Your task to perform on an android device: turn pop-ups on in chrome Image 0: 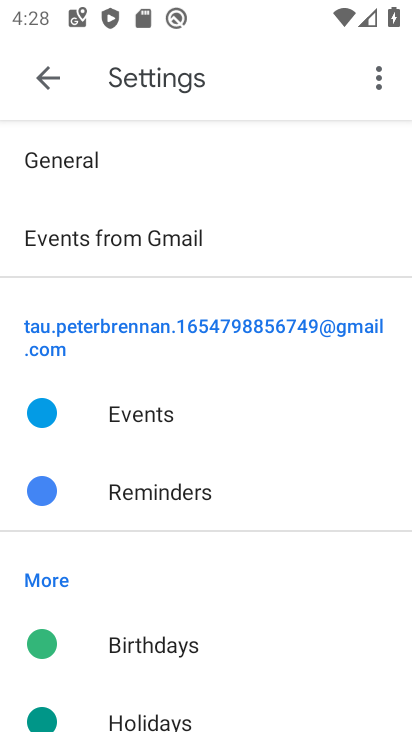
Step 0: press back button
Your task to perform on an android device: turn pop-ups on in chrome Image 1: 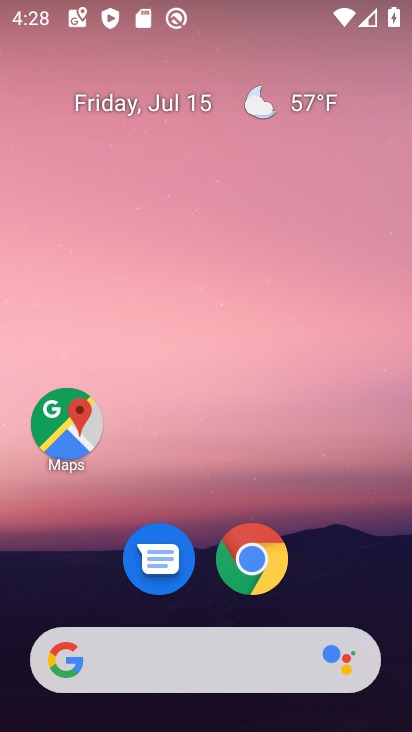
Step 1: click (245, 544)
Your task to perform on an android device: turn pop-ups on in chrome Image 2: 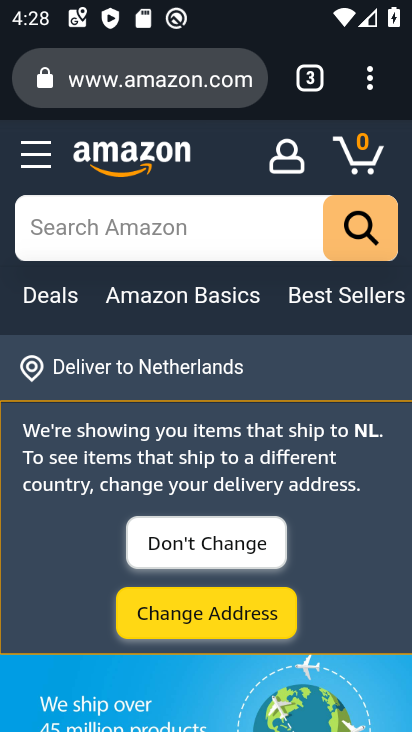
Step 2: drag from (377, 77) to (145, 621)
Your task to perform on an android device: turn pop-ups on in chrome Image 3: 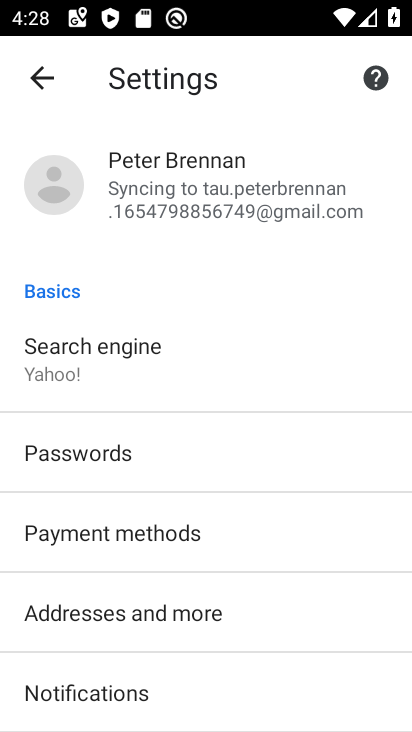
Step 3: drag from (145, 655) to (250, 111)
Your task to perform on an android device: turn pop-ups on in chrome Image 4: 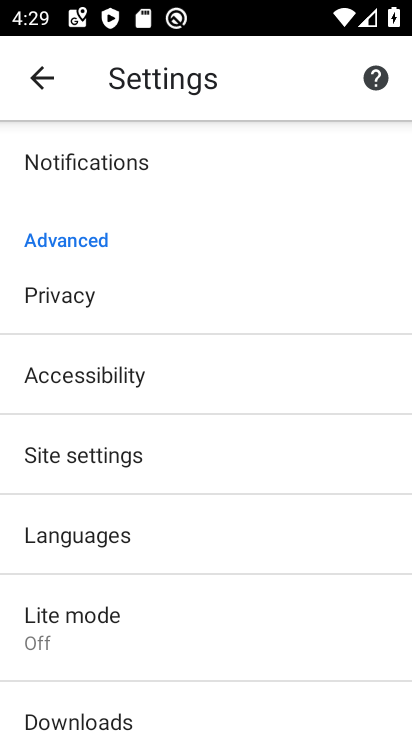
Step 4: click (109, 453)
Your task to perform on an android device: turn pop-ups on in chrome Image 5: 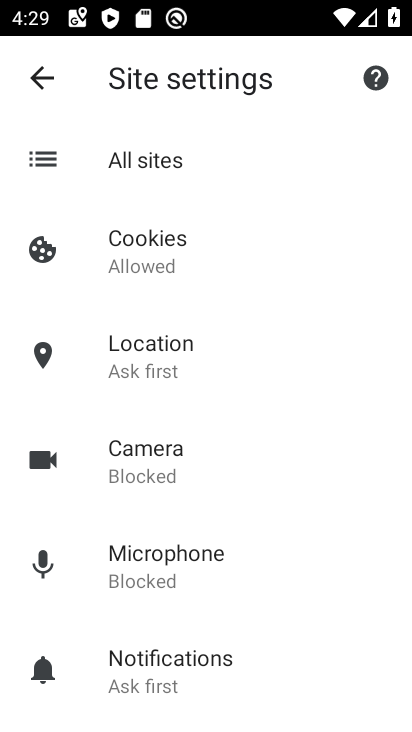
Step 5: drag from (192, 690) to (287, 87)
Your task to perform on an android device: turn pop-ups on in chrome Image 6: 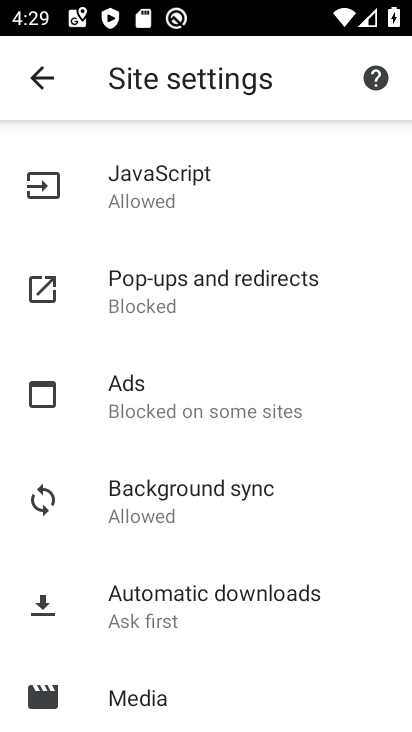
Step 6: click (181, 290)
Your task to perform on an android device: turn pop-ups on in chrome Image 7: 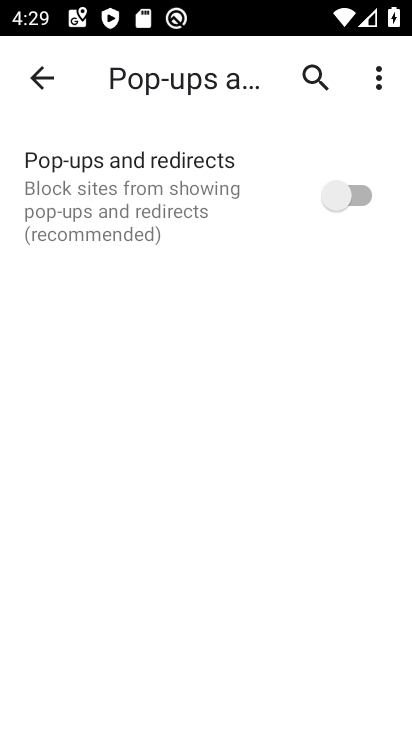
Step 7: click (355, 187)
Your task to perform on an android device: turn pop-ups on in chrome Image 8: 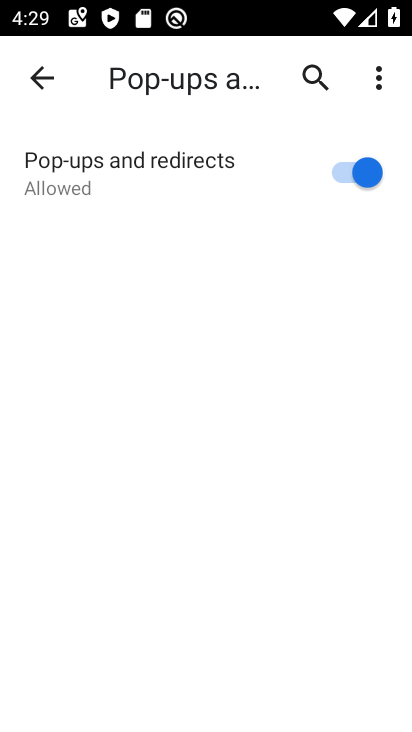
Step 8: task complete